Your task to perform on an android device: change the clock display to digital Image 0: 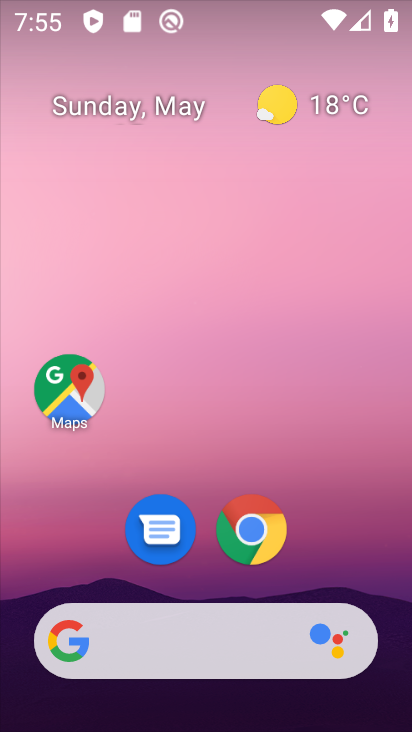
Step 0: drag from (337, 574) to (354, 0)
Your task to perform on an android device: change the clock display to digital Image 1: 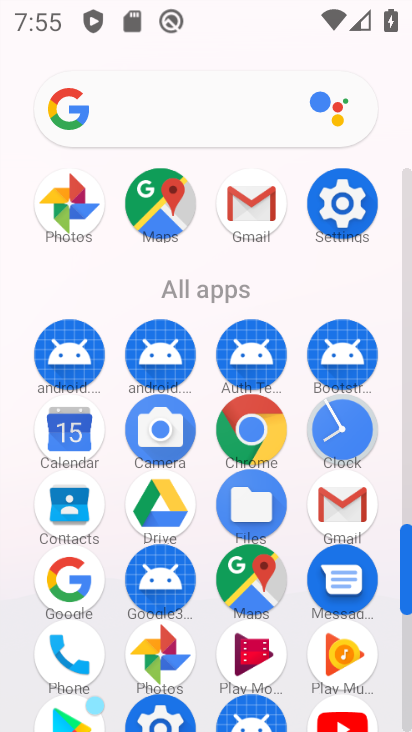
Step 1: click (337, 437)
Your task to perform on an android device: change the clock display to digital Image 2: 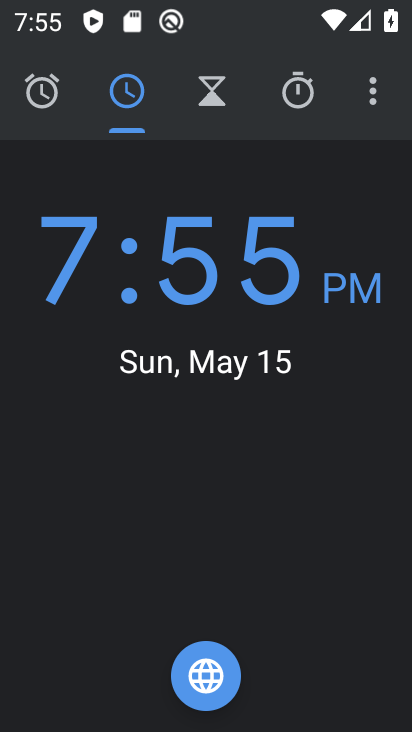
Step 2: click (375, 99)
Your task to perform on an android device: change the clock display to digital Image 3: 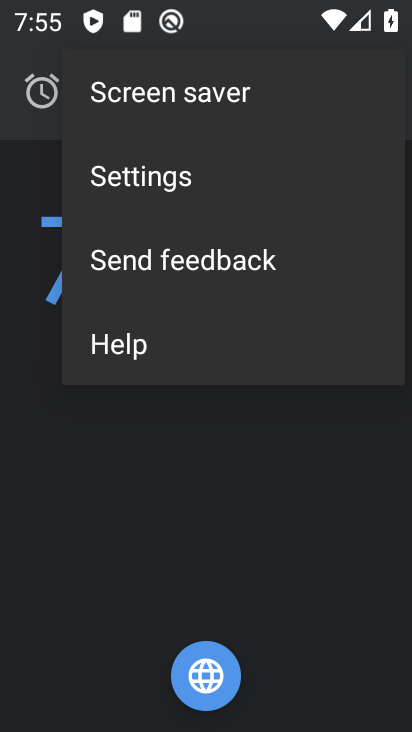
Step 3: click (153, 183)
Your task to perform on an android device: change the clock display to digital Image 4: 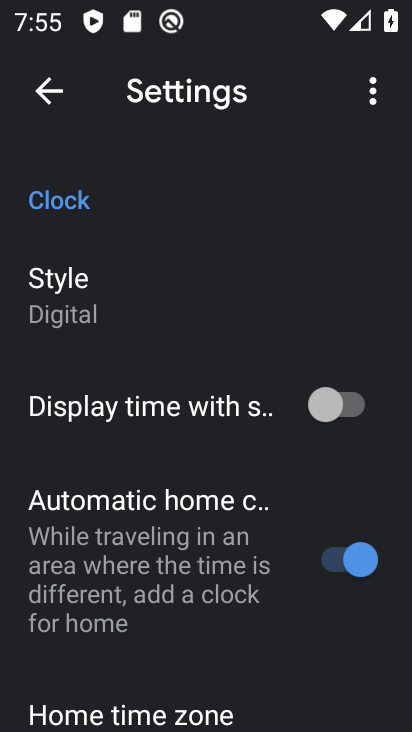
Step 4: task complete